Your task to perform on an android device: Open Amazon Image 0: 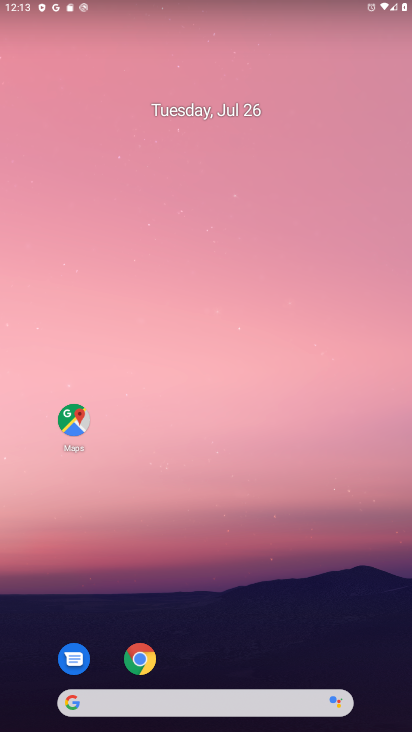
Step 0: click (132, 667)
Your task to perform on an android device: Open Amazon Image 1: 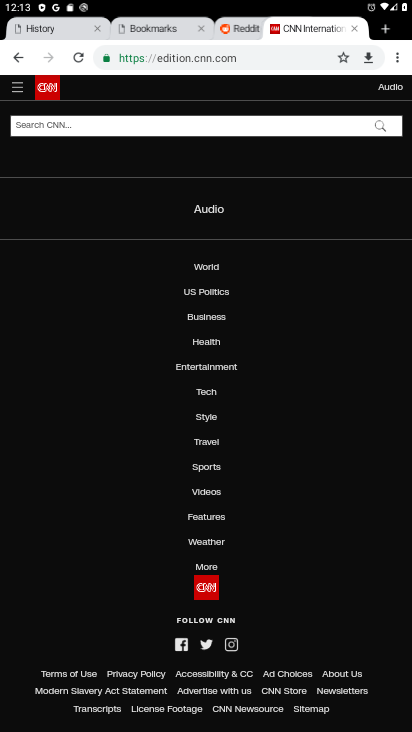
Step 1: click (396, 59)
Your task to perform on an android device: Open Amazon Image 2: 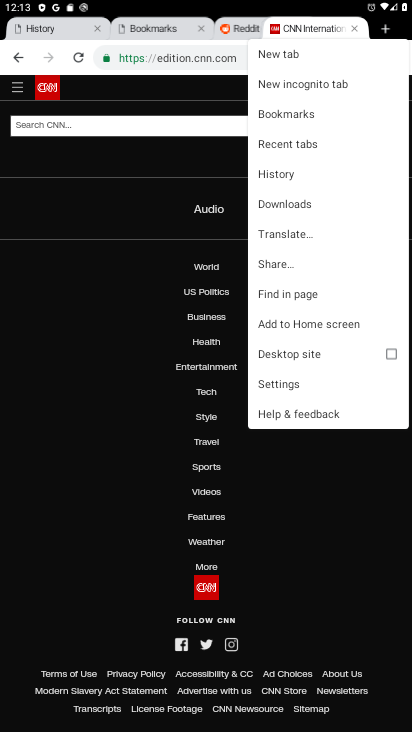
Step 2: click (293, 53)
Your task to perform on an android device: Open Amazon Image 3: 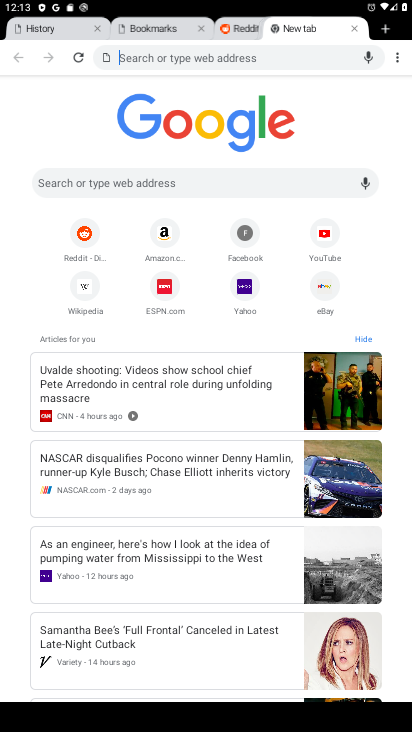
Step 3: click (168, 235)
Your task to perform on an android device: Open Amazon Image 4: 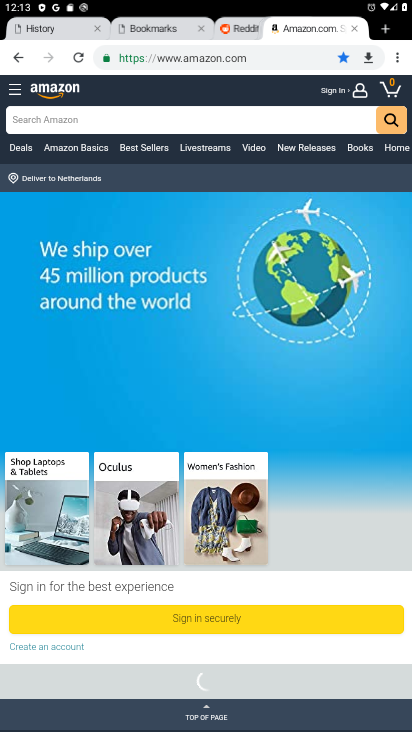
Step 4: task complete